Your task to perform on an android device: turn pop-ups on in chrome Image 0: 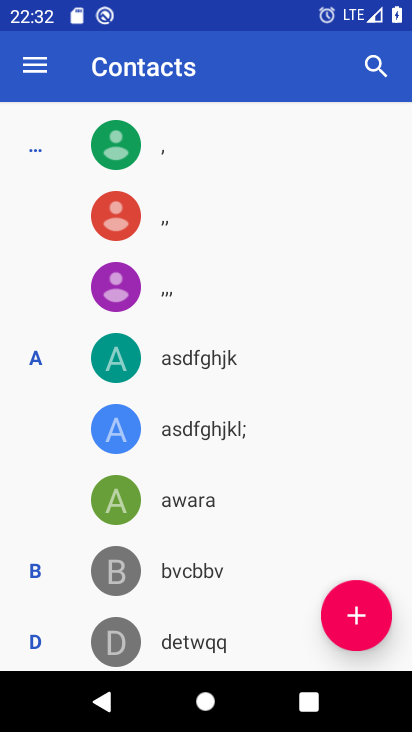
Step 0: press home button
Your task to perform on an android device: turn pop-ups on in chrome Image 1: 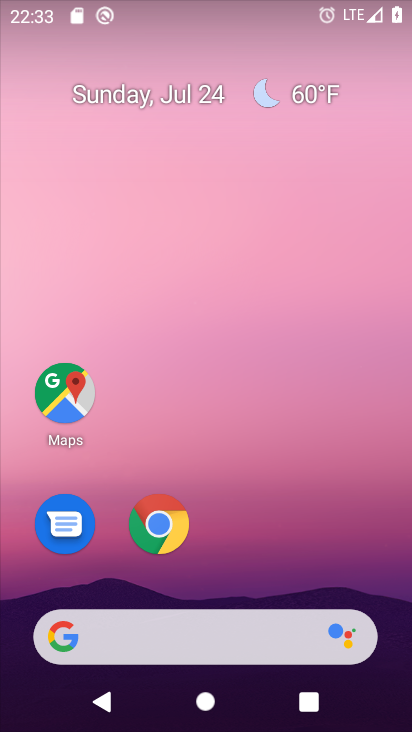
Step 1: click (171, 512)
Your task to perform on an android device: turn pop-ups on in chrome Image 2: 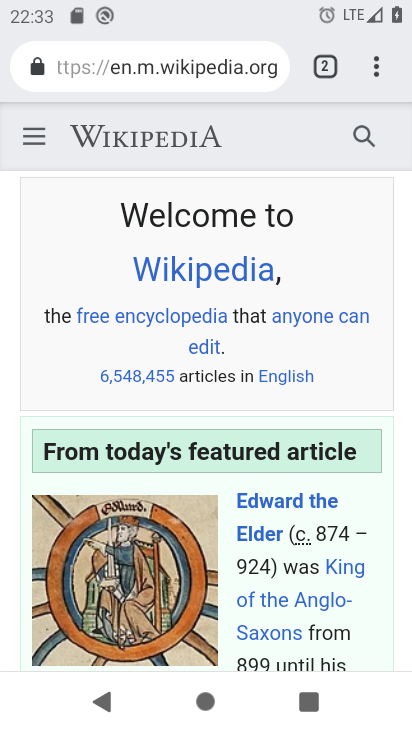
Step 2: click (377, 70)
Your task to perform on an android device: turn pop-ups on in chrome Image 3: 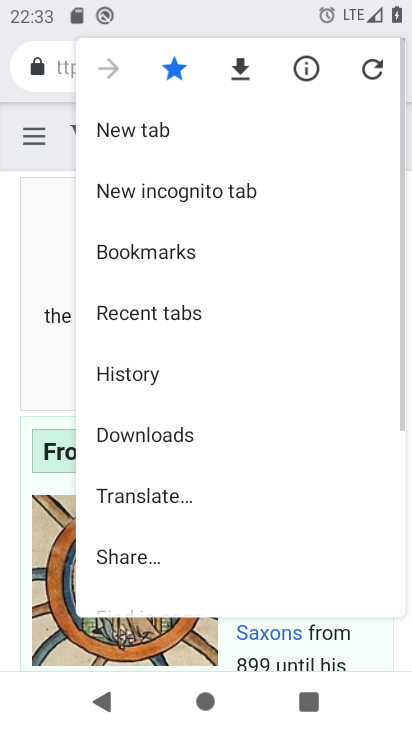
Step 3: drag from (212, 460) to (281, 147)
Your task to perform on an android device: turn pop-ups on in chrome Image 4: 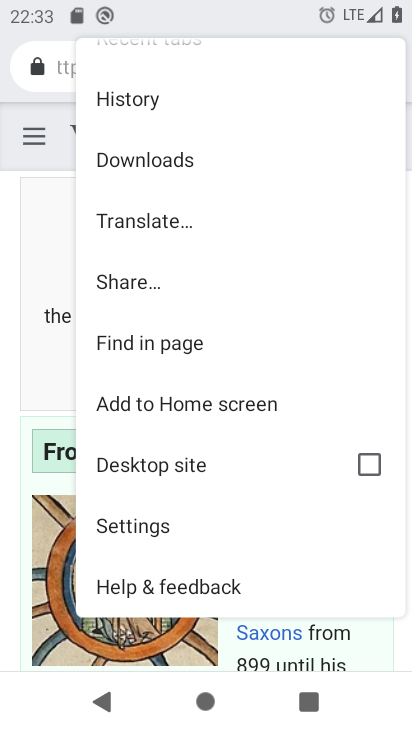
Step 4: click (149, 522)
Your task to perform on an android device: turn pop-ups on in chrome Image 5: 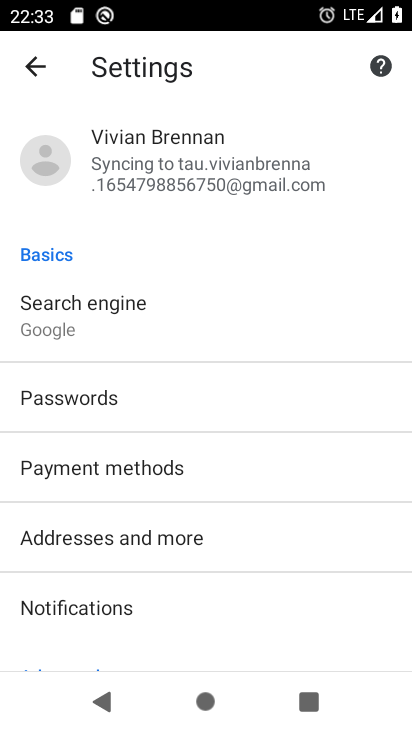
Step 5: drag from (269, 467) to (347, 200)
Your task to perform on an android device: turn pop-ups on in chrome Image 6: 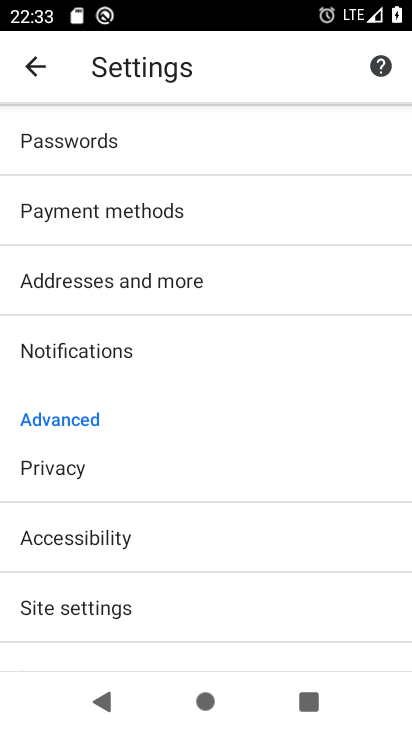
Step 6: click (102, 605)
Your task to perform on an android device: turn pop-ups on in chrome Image 7: 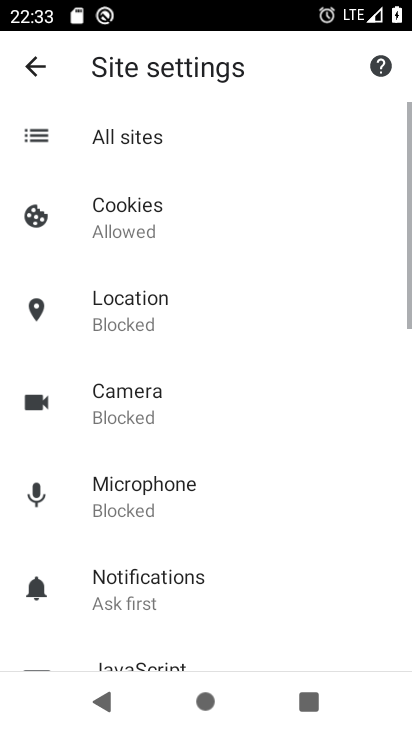
Step 7: drag from (265, 514) to (342, 205)
Your task to perform on an android device: turn pop-ups on in chrome Image 8: 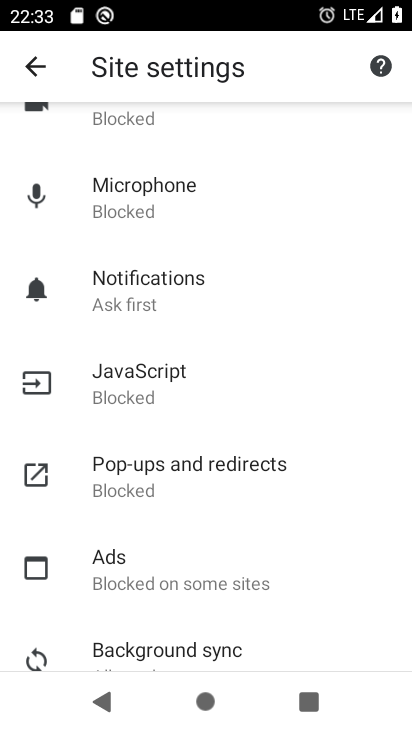
Step 8: click (266, 472)
Your task to perform on an android device: turn pop-ups on in chrome Image 9: 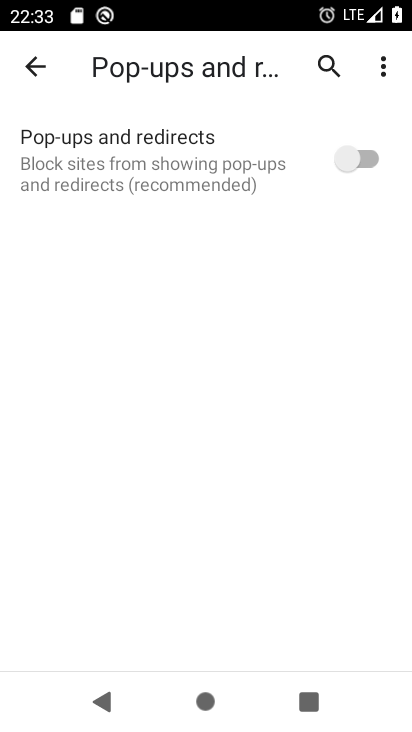
Step 9: click (370, 152)
Your task to perform on an android device: turn pop-ups on in chrome Image 10: 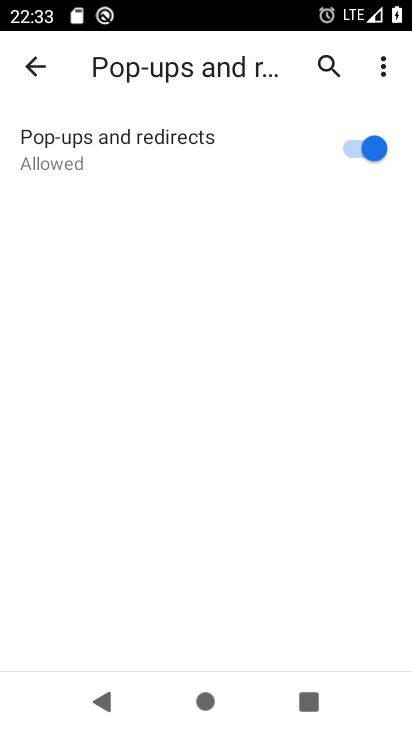
Step 10: task complete